Your task to perform on an android device: Do I have any events this weekend? Image 0: 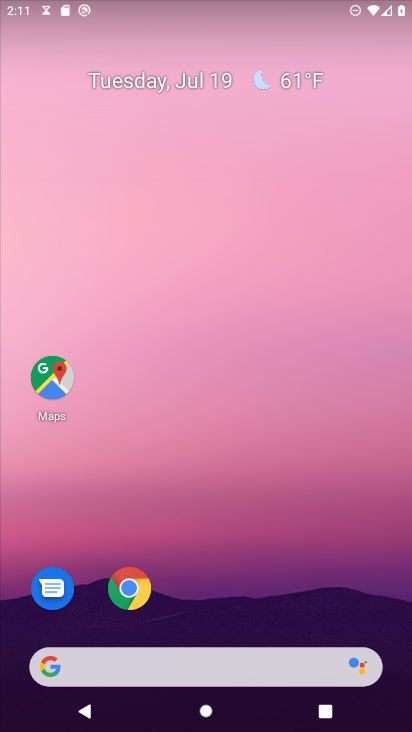
Step 0: drag from (243, 679) to (235, 5)
Your task to perform on an android device: Do I have any events this weekend? Image 1: 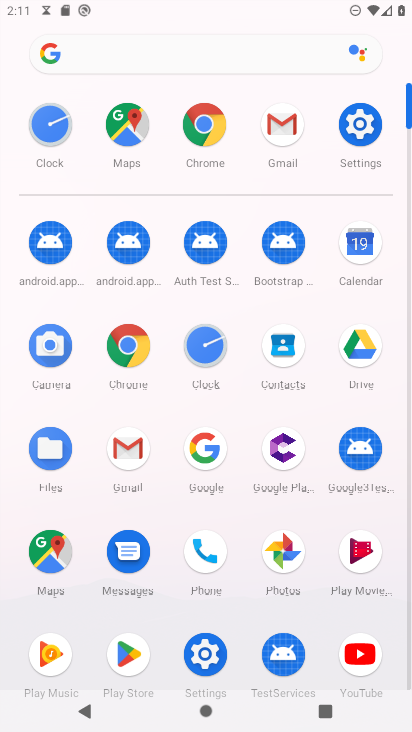
Step 1: click (362, 221)
Your task to perform on an android device: Do I have any events this weekend? Image 2: 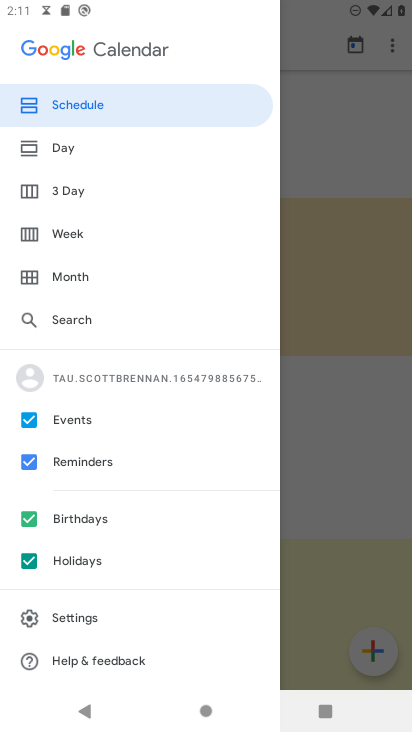
Step 2: click (67, 277)
Your task to perform on an android device: Do I have any events this weekend? Image 3: 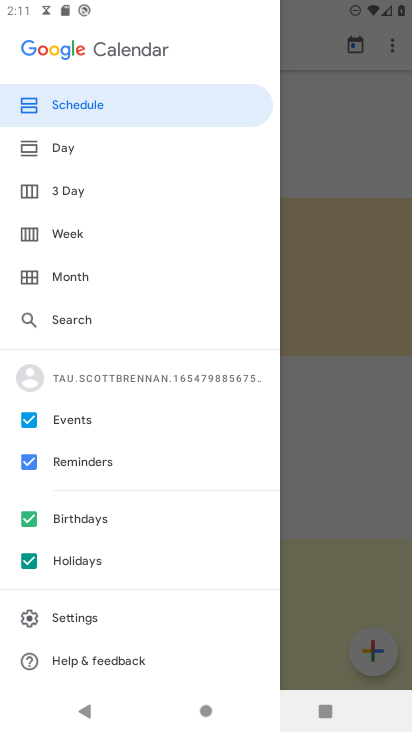
Step 3: click (74, 273)
Your task to perform on an android device: Do I have any events this weekend? Image 4: 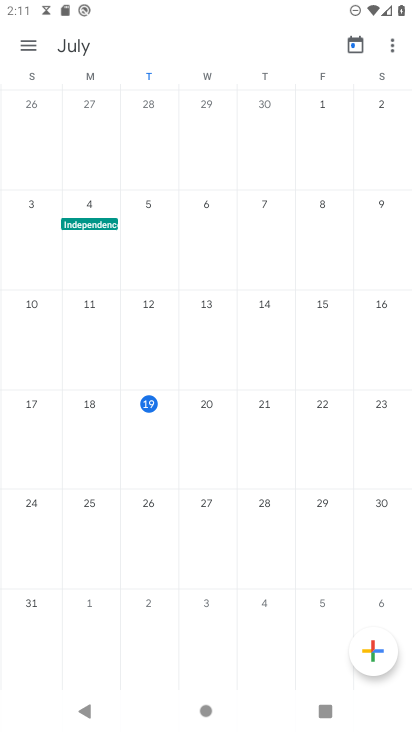
Step 4: click (102, 448)
Your task to perform on an android device: Do I have any events this weekend? Image 5: 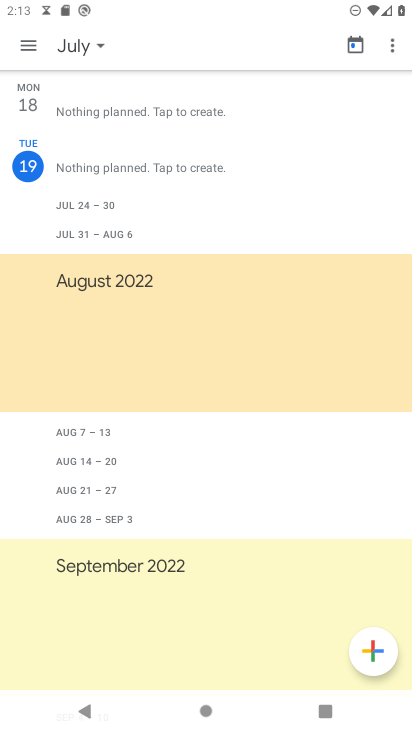
Step 5: task complete